Your task to perform on an android device: install app "Microsoft Authenticator" Image 0: 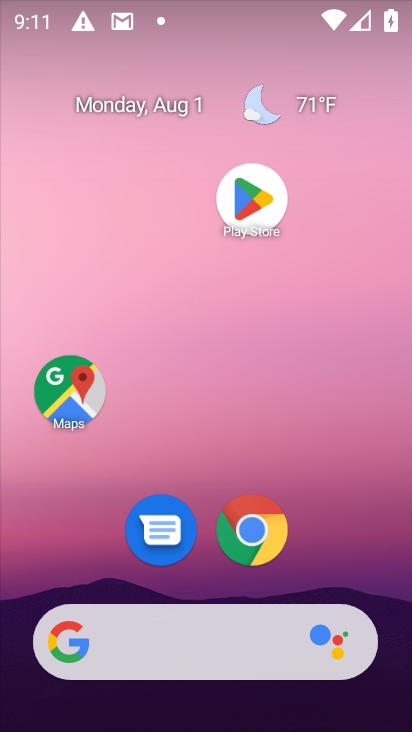
Step 0: click (239, 192)
Your task to perform on an android device: install app "Microsoft Authenticator" Image 1: 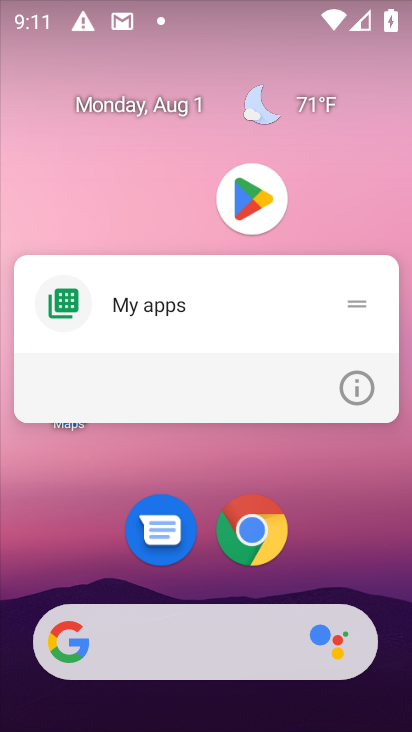
Step 1: click (239, 192)
Your task to perform on an android device: install app "Microsoft Authenticator" Image 2: 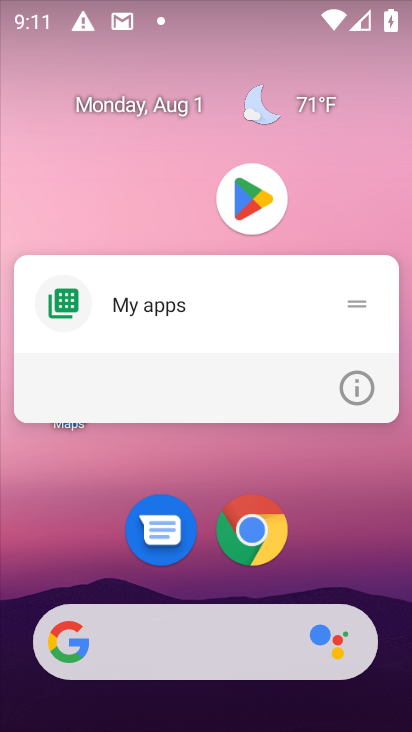
Step 2: click (276, 170)
Your task to perform on an android device: install app "Microsoft Authenticator" Image 3: 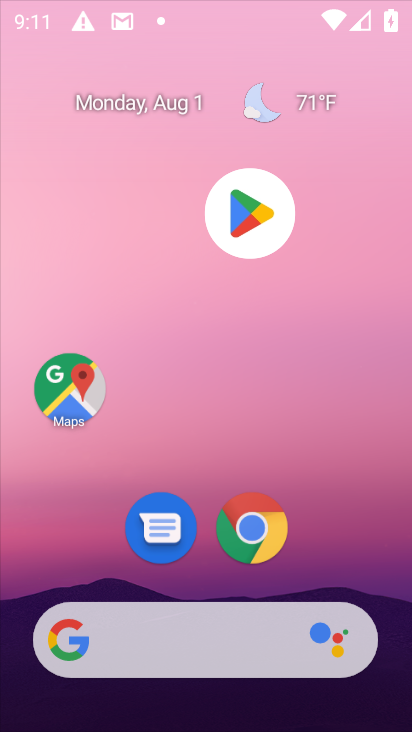
Step 3: click (230, 172)
Your task to perform on an android device: install app "Microsoft Authenticator" Image 4: 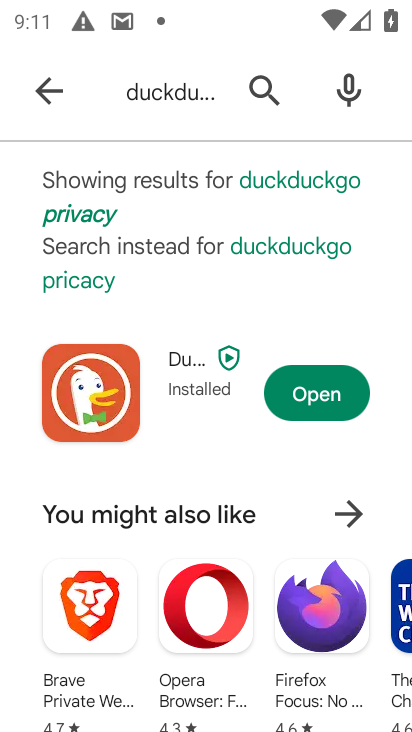
Step 4: click (250, 83)
Your task to perform on an android device: install app "Microsoft Authenticator" Image 5: 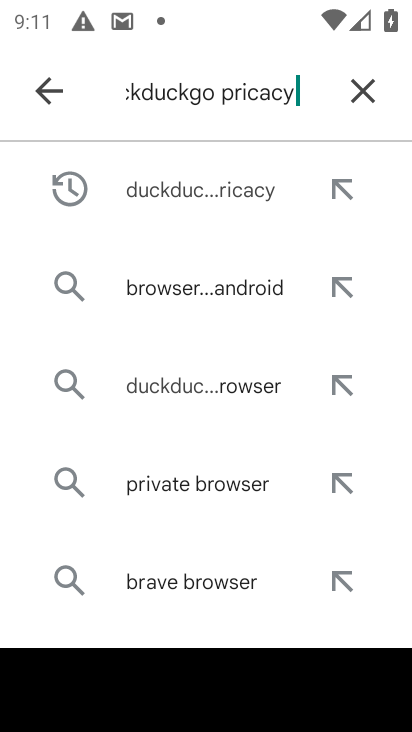
Step 5: click (379, 90)
Your task to perform on an android device: install app "Microsoft Authenticator" Image 6: 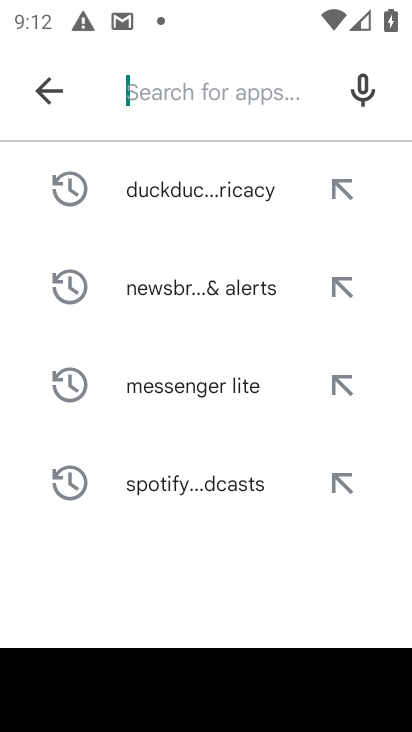
Step 6: type "Microsoft Authenticator"
Your task to perform on an android device: install app "Microsoft Authenticator" Image 7: 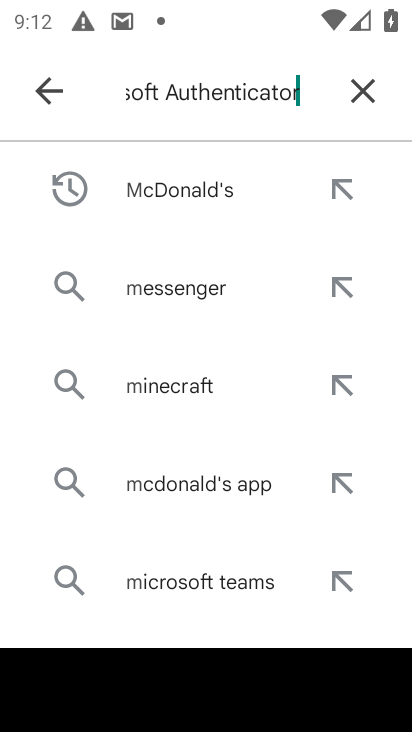
Step 7: type ""
Your task to perform on an android device: install app "Microsoft Authenticator" Image 8: 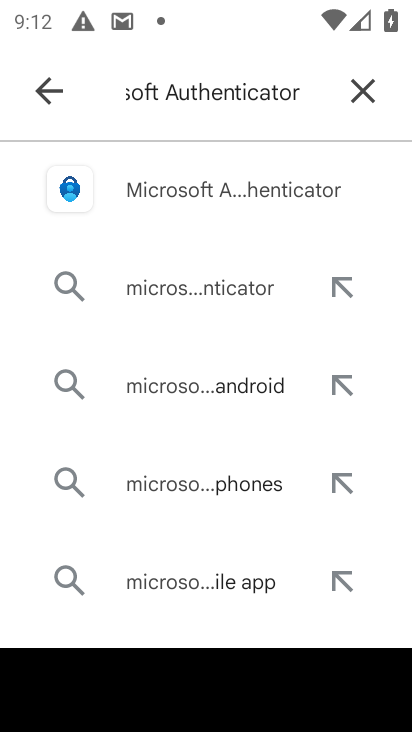
Step 8: click (318, 187)
Your task to perform on an android device: install app "Microsoft Authenticator" Image 9: 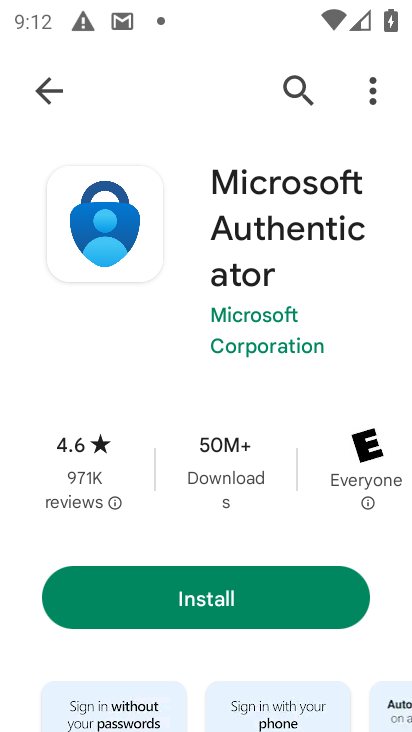
Step 9: click (249, 607)
Your task to perform on an android device: install app "Microsoft Authenticator" Image 10: 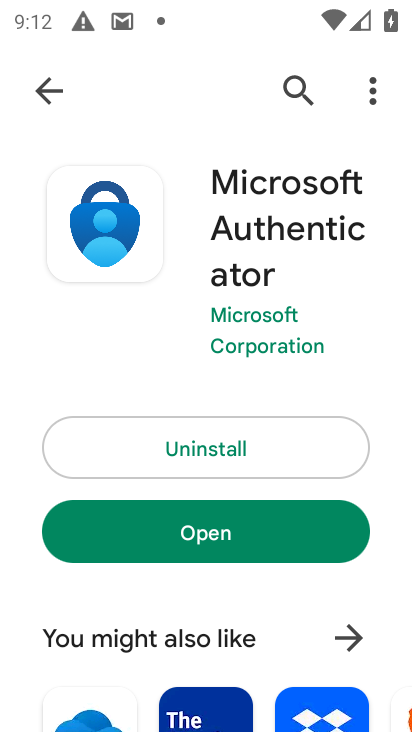
Step 10: task complete